Your task to perform on an android device: turn off location Image 0: 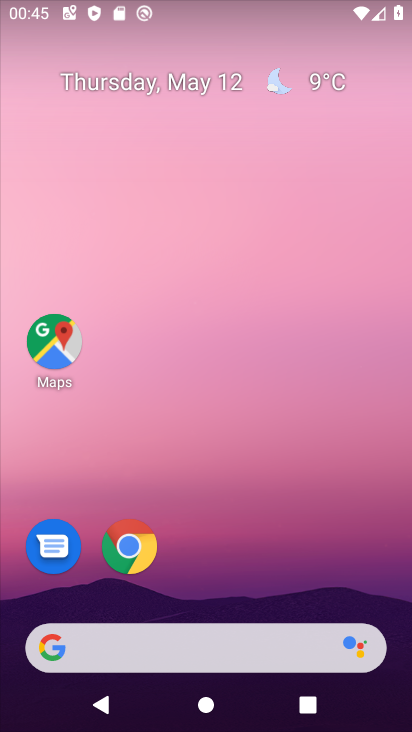
Step 0: drag from (143, 607) to (159, 270)
Your task to perform on an android device: turn off location Image 1: 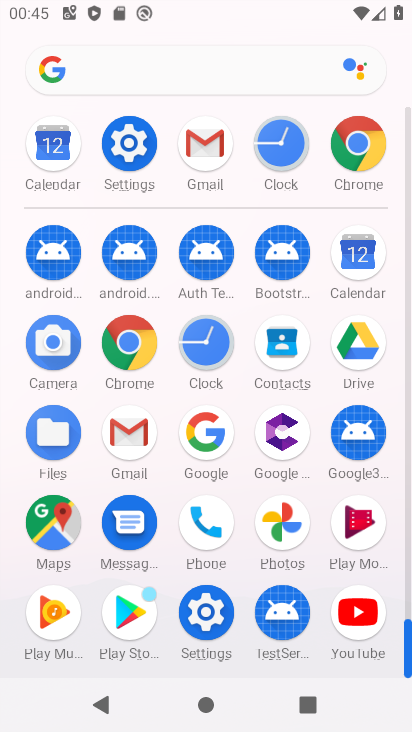
Step 1: click (205, 605)
Your task to perform on an android device: turn off location Image 2: 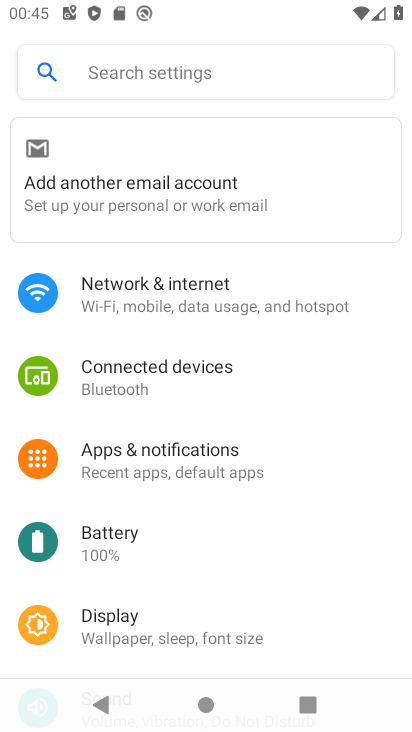
Step 2: drag from (165, 583) to (195, 280)
Your task to perform on an android device: turn off location Image 3: 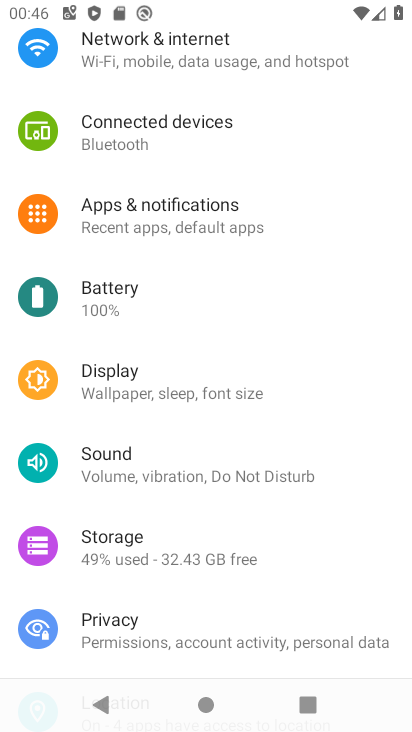
Step 3: drag from (181, 593) to (218, 317)
Your task to perform on an android device: turn off location Image 4: 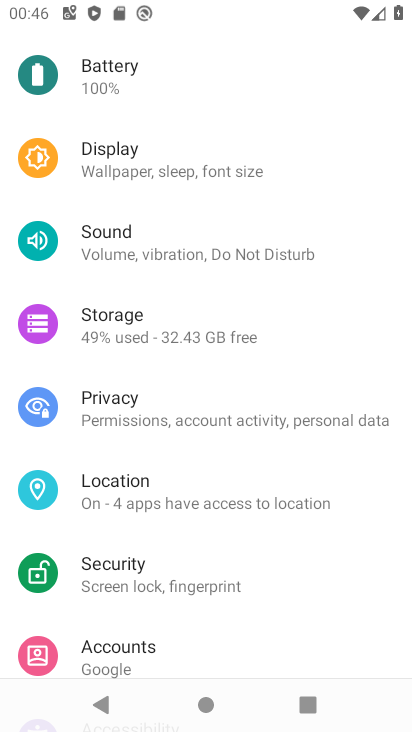
Step 4: click (165, 497)
Your task to perform on an android device: turn off location Image 5: 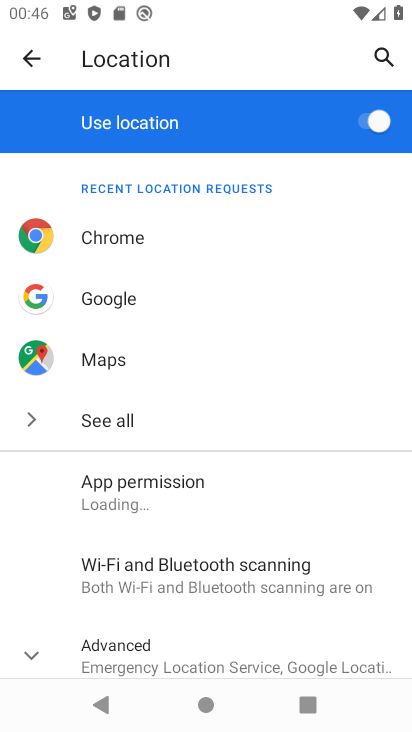
Step 5: click (362, 123)
Your task to perform on an android device: turn off location Image 6: 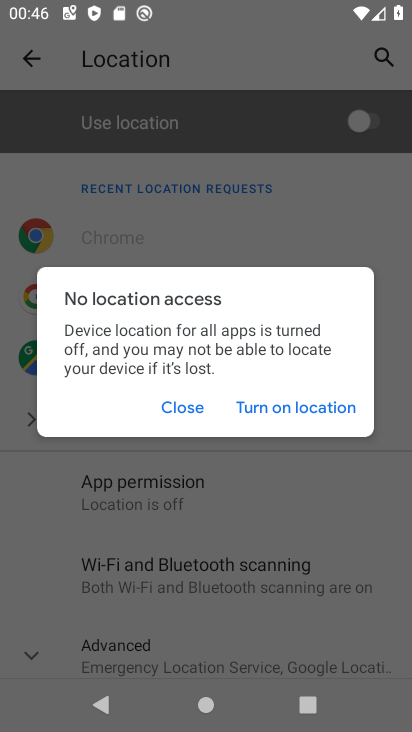
Step 6: task complete